Your task to perform on an android device: Add usb-c to usb-a to the cart on walmart Image 0: 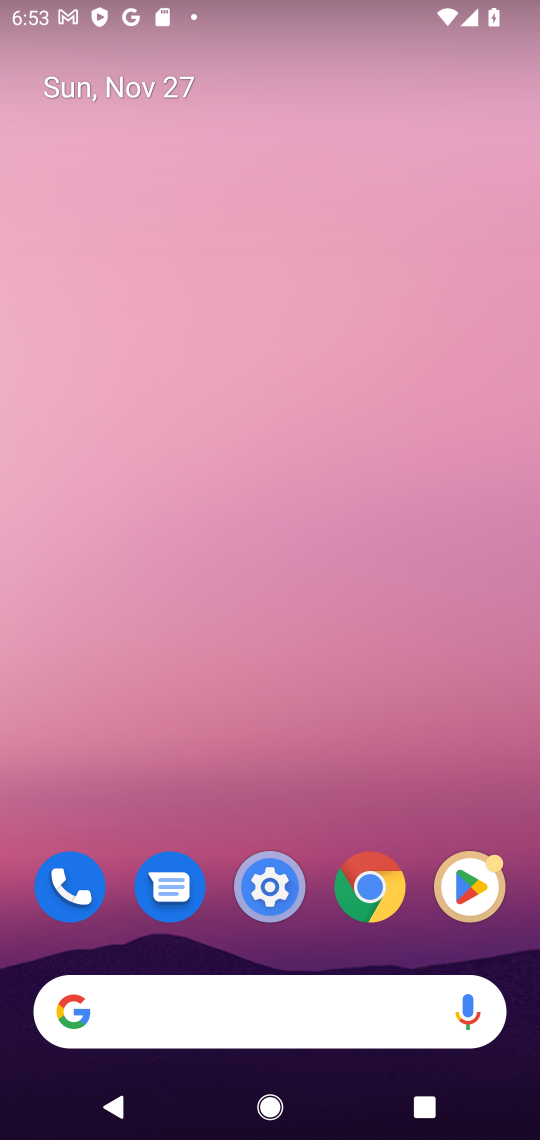
Step 0: press home button
Your task to perform on an android device: Add usb-c to usb-a to the cart on walmart Image 1: 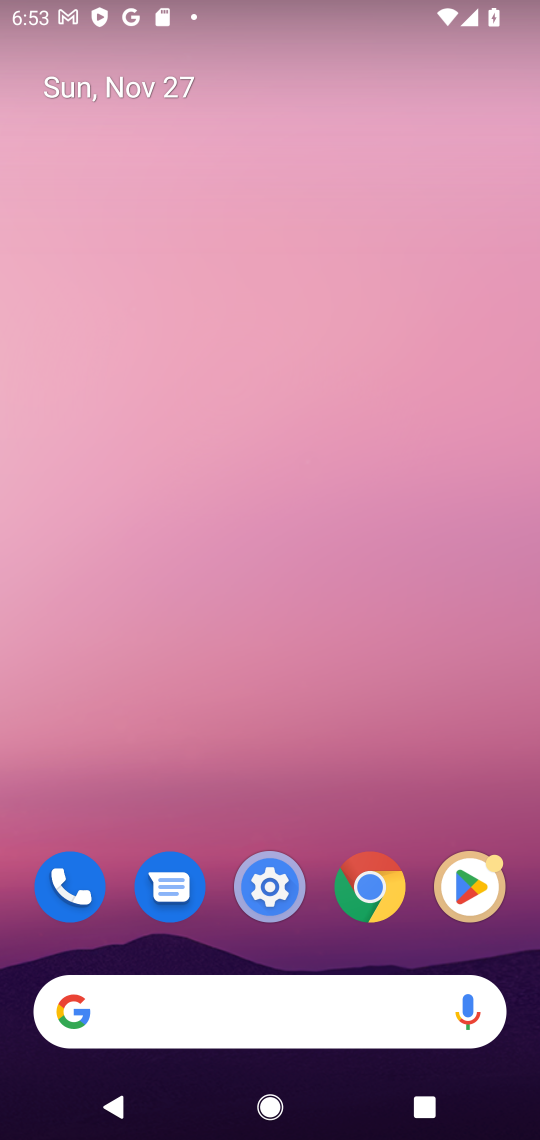
Step 1: click (187, 1016)
Your task to perform on an android device: Add usb-c to usb-a to the cart on walmart Image 2: 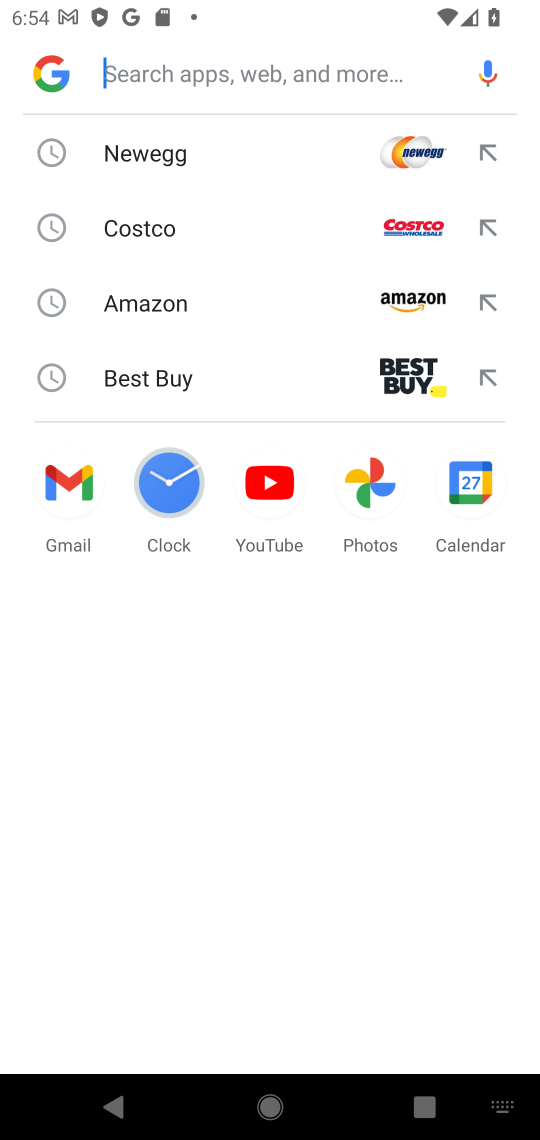
Step 2: type "walmart"
Your task to perform on an android device: Add usb-c to usb-a to the cart on walmart Image 3: 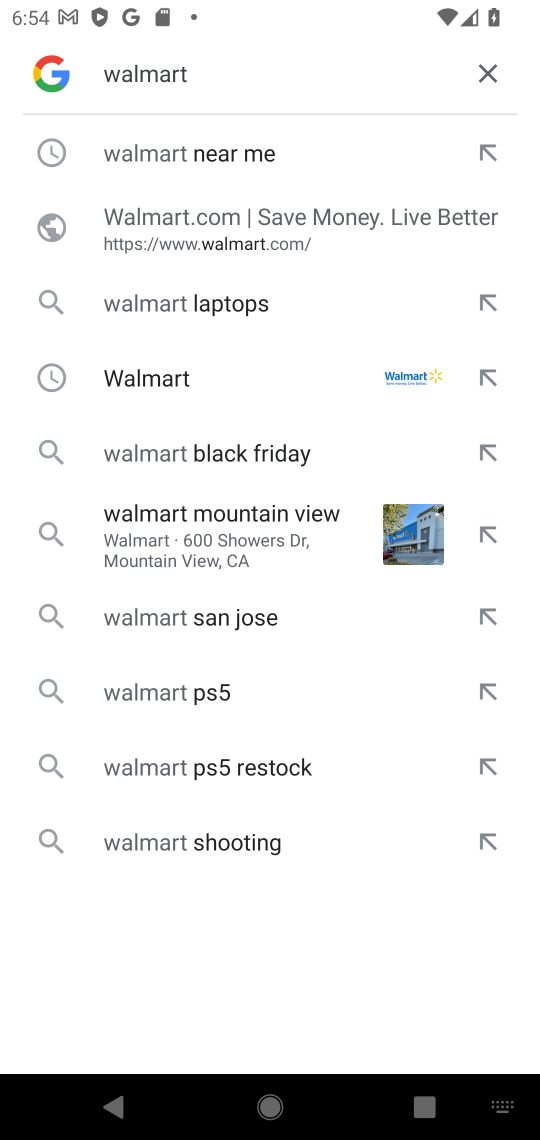
Step 3: click (209, 226)
Your task to perform on an android device: Add usb-c to usb-a to the cart on walmart Image 4: 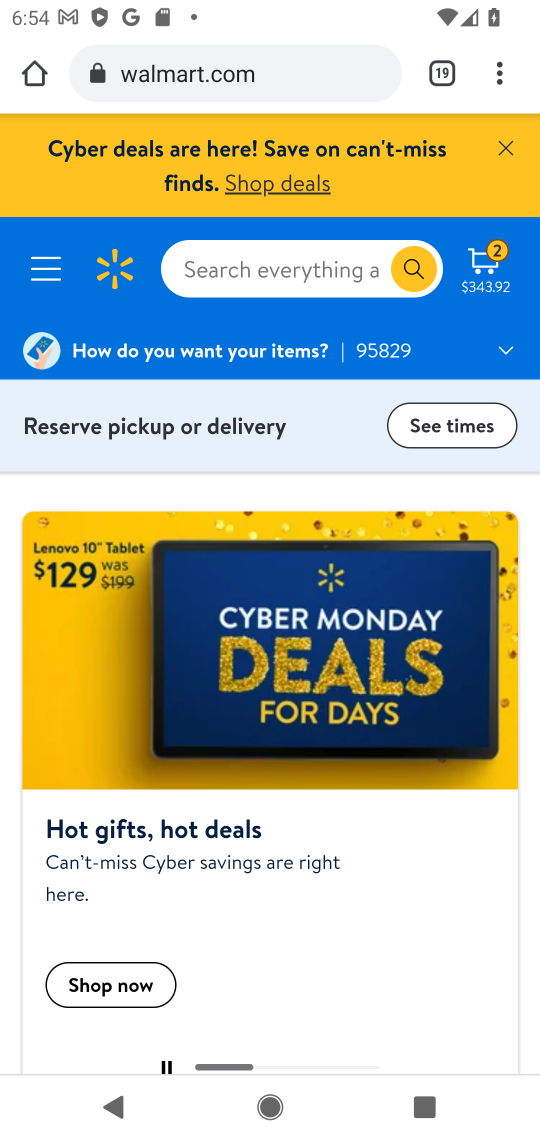
Step 4: click (209, 257)
Your task to perform on an android device: Add usb-c to usb-a to the cart on walmart Image 5: 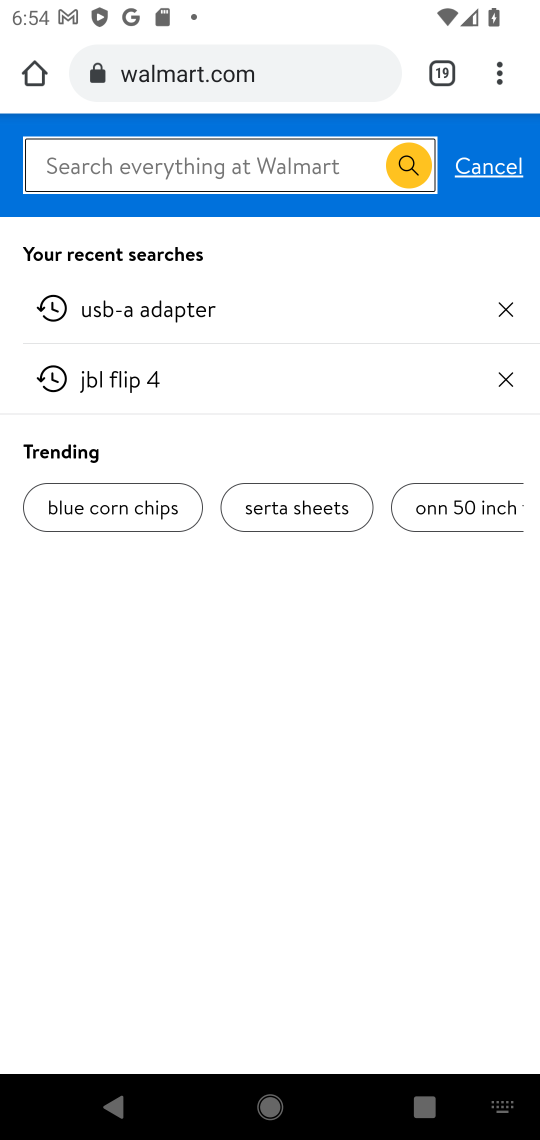
Step 5: type "usb-c to usb-a"
Your task to perform on an android device: Add usb-c to usb-a to the cart on walmart Image 6: 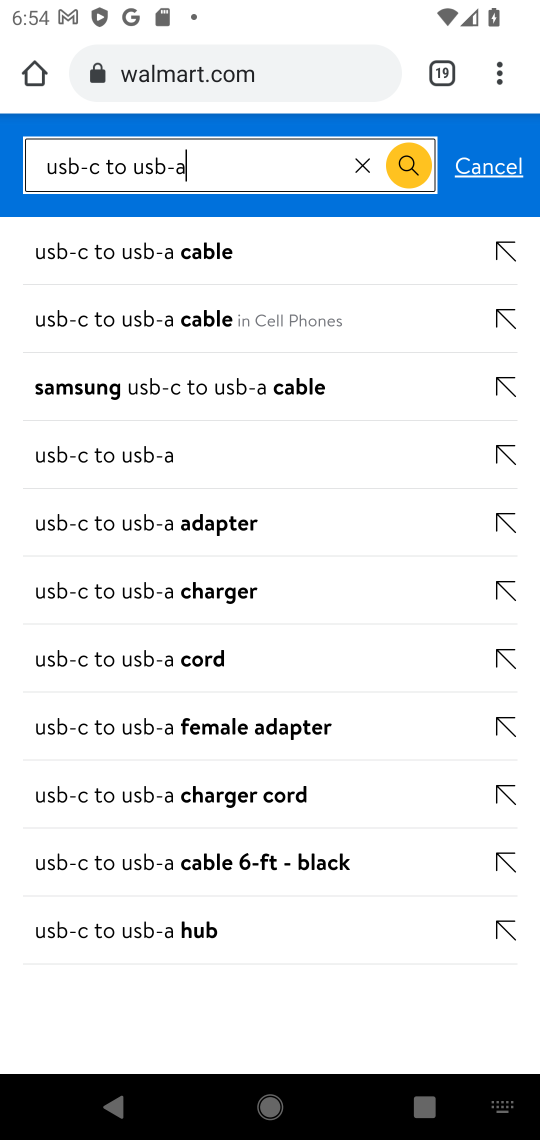
Step 6: click (191, 239)
Your task to perform on an android device: Add usb-c to usb-a to the cart on walmart Image 7: 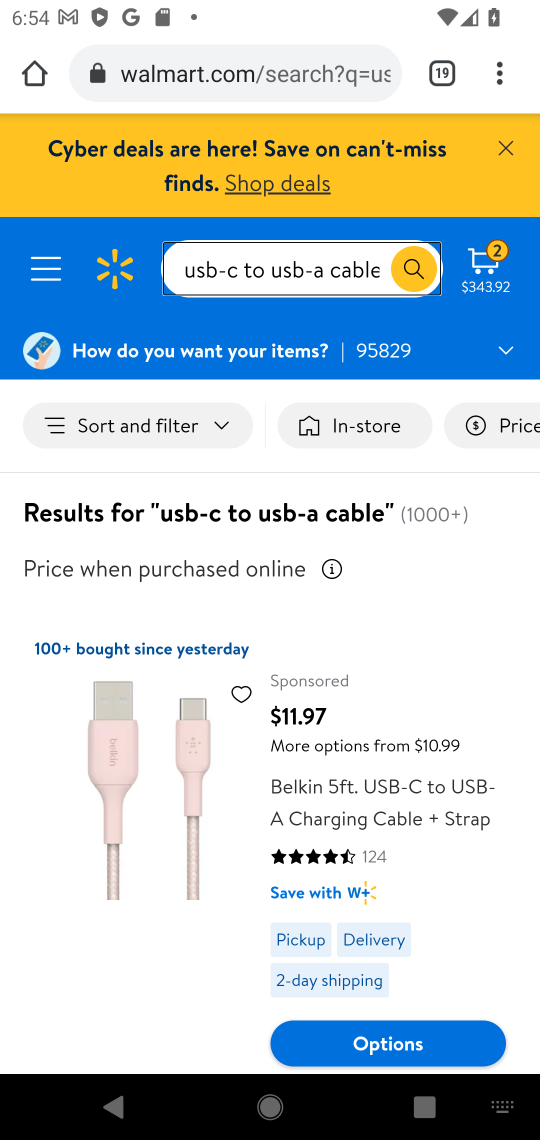
Step 7: click (419, 1053)
Your task to perform on an android device: Add usb-c to usb-a to the cart on walmart Image 8: 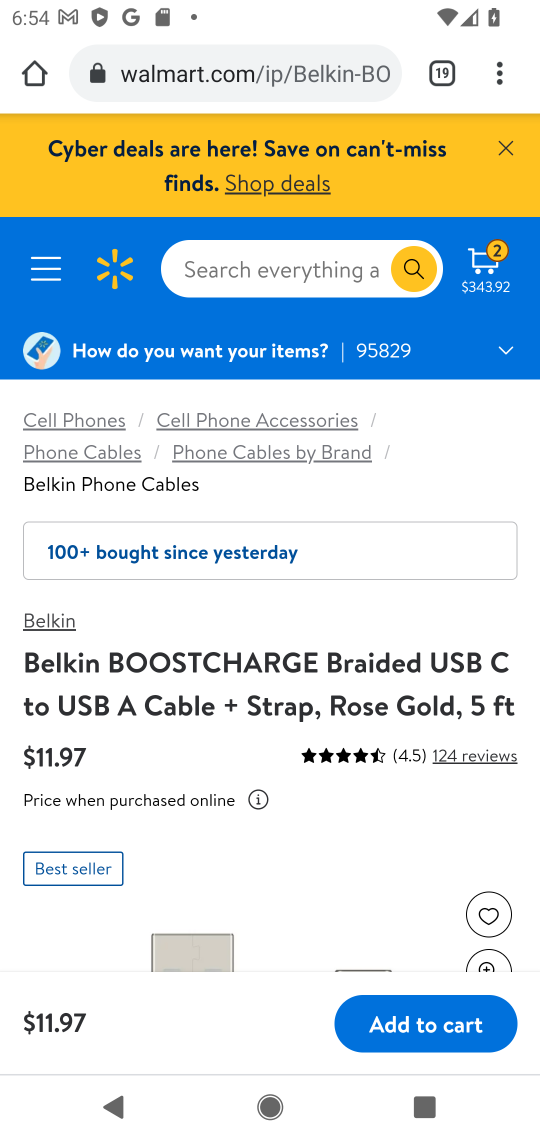
Step 8: click (419, 1039)
Your task to perform on an android device: Add usb-c to usb-a to the cart on walmart Image 9: 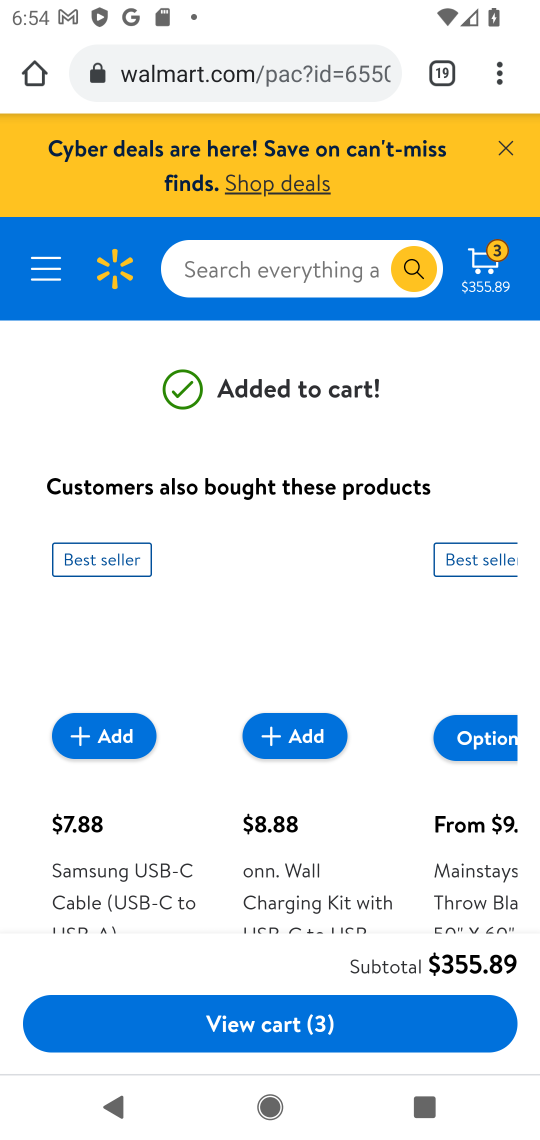
Step 9: task complete